Your task to perform on an android device: turn off javascript in the chrome app Image 0: 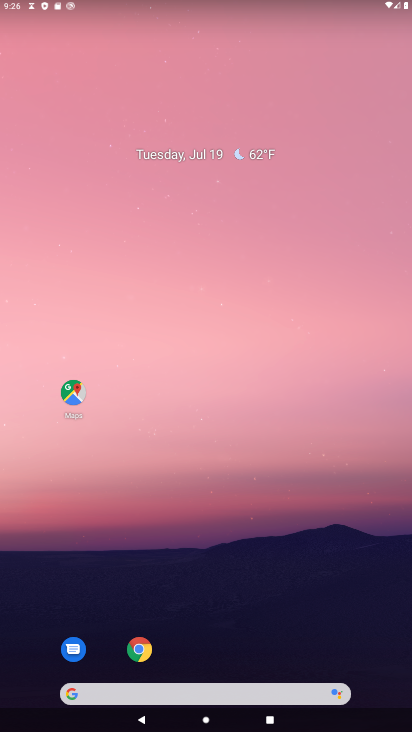
Step 0: drag from (214, 643) to (238, 321)
Your task to perform on an android device: turn off javascript in the chrome app Image 1: 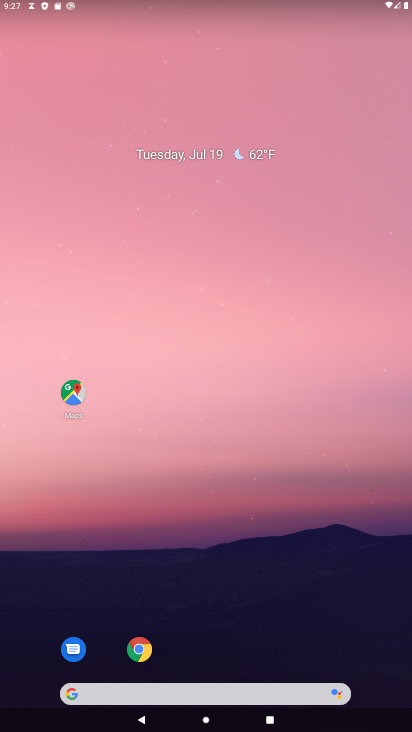
Step 1: drag from (256, 668) to (269, 119)
Your task to perform on an android device: turn off javascript in the chrome app Image 2: 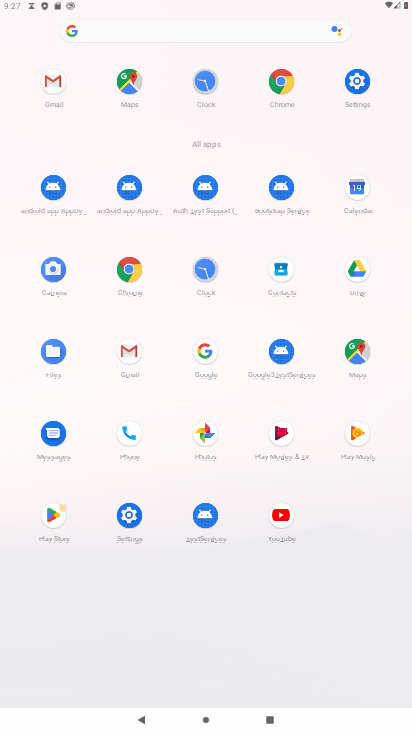
Step 2: click (134, 274)
Your task to perform on an android device: turn off javascript in the chrome app Image 3: 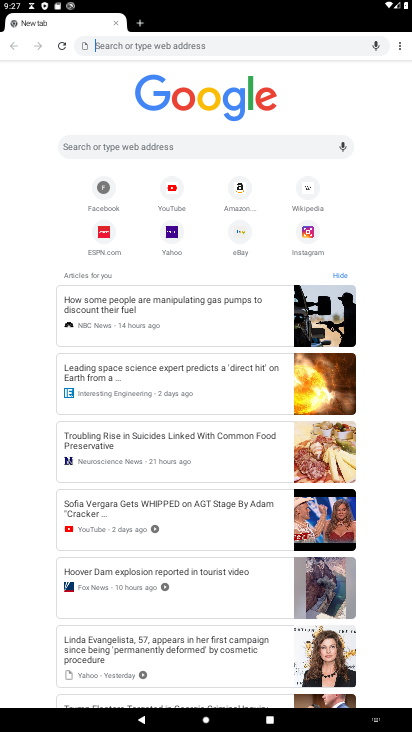
Step 3: click (402, 43)
Your task to perform on an android device: turn off javascript in the chrome app Image 4: 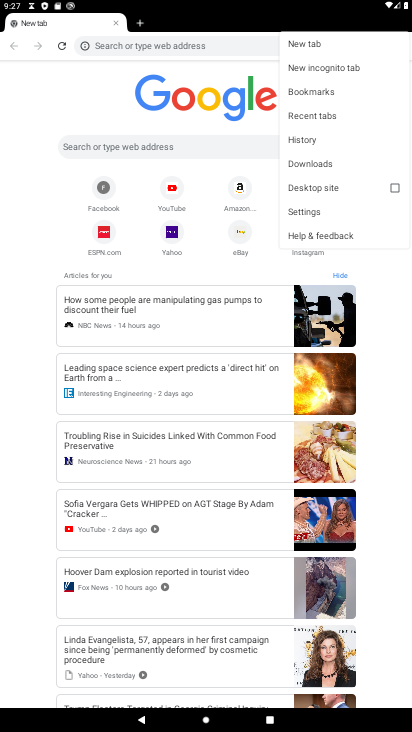
Step 4: click (320, 212)
Your task to perform on an android device: turn off javascript in the chrome app Image 5: 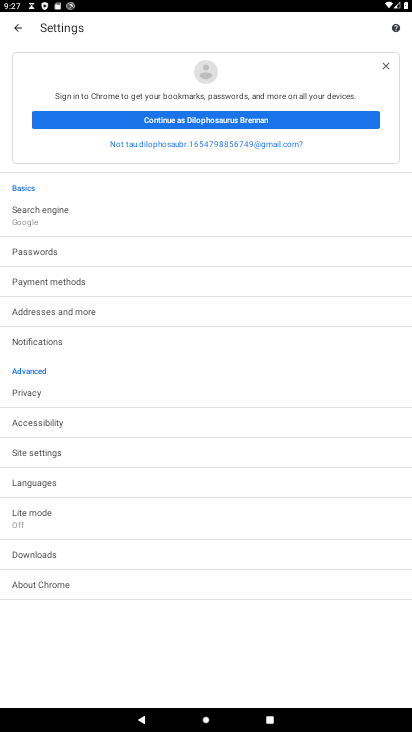
Step 5: click (68, 457)
Your task to perform on an android device: turn off javascript in the chrome app Image 6: 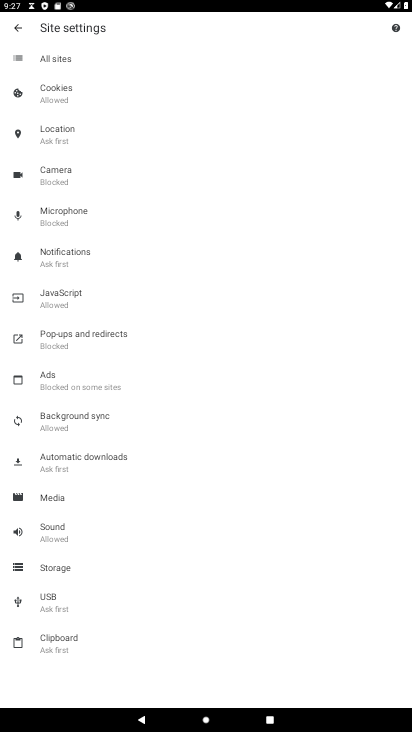
Step 6: click (91, 289)
Your task to perform on an android device: turn off javascript in the chrome app Image 7: 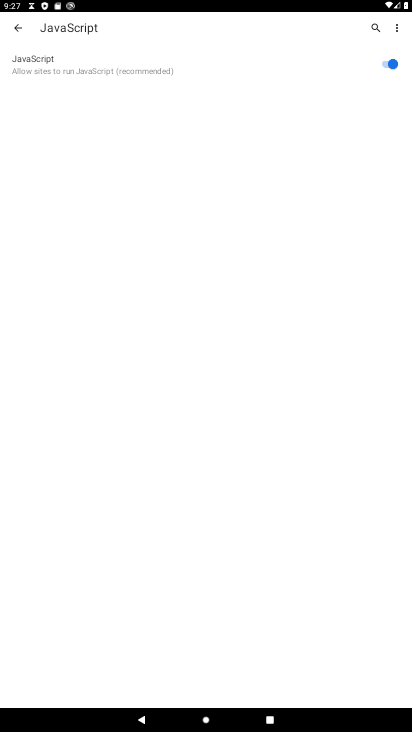
Step 7: click (390, 62)
Your task to perform on an android device: turn off javascript in the chrome app Image 8: 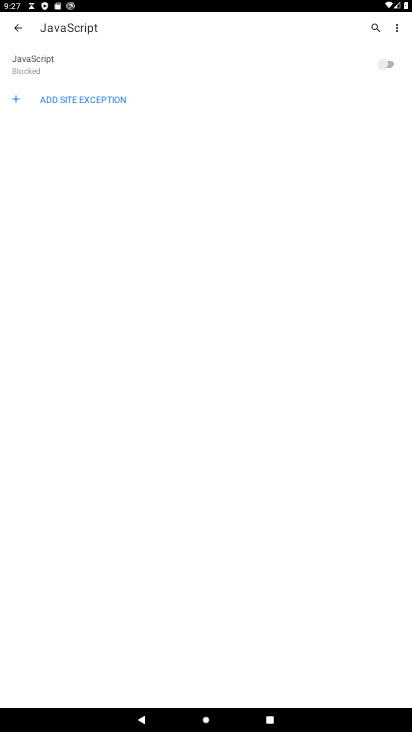
Step 8: task complete